Your task to perform on an android device: Is it going to rain this weekend? Image 0: 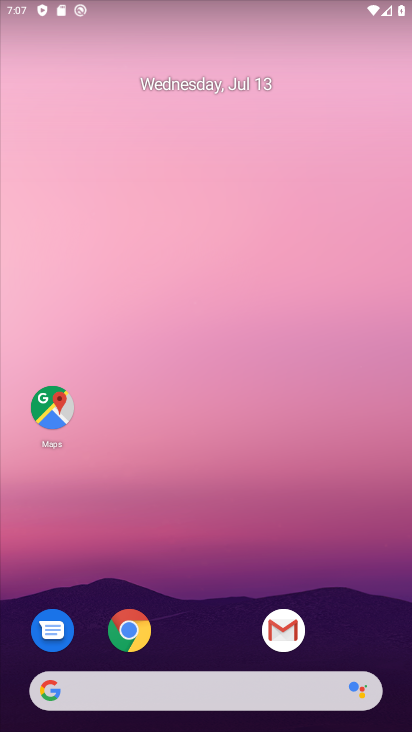
Step 0: drag from (191, 716) to (270, 255)
Your task to perform on an android device: Is it going to rain this weekend? Image 1: 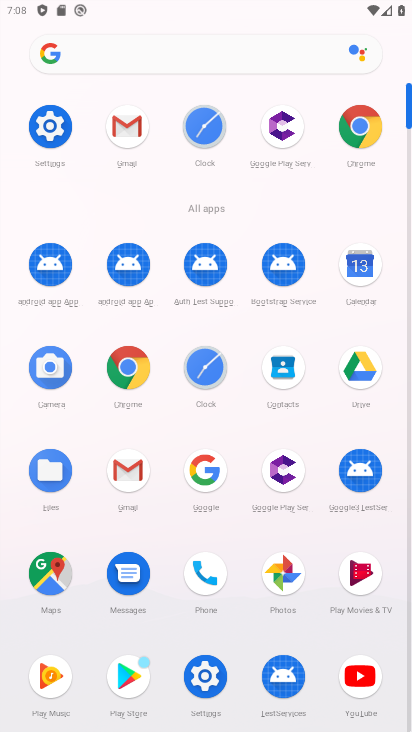
Step 1: click (171, 74)
Your task to perform on an android device: Is it going to rain this weekend? Image 2: 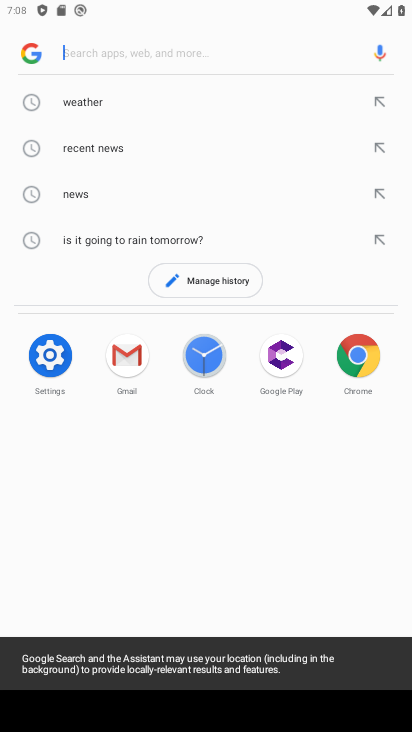
Step 2: click (135, 245)
Your task to perform on an android device: Is it going to rain this weekend? Image 3: 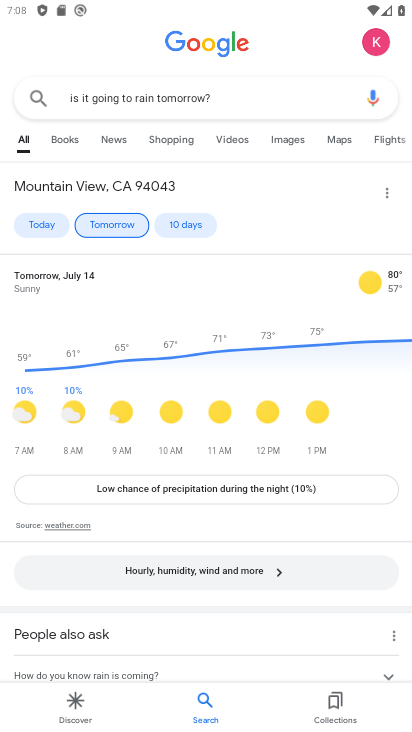
Step 3: click (184, 221)
Your task to perform on an android device: Is it going to rain this weekend? Image 4: 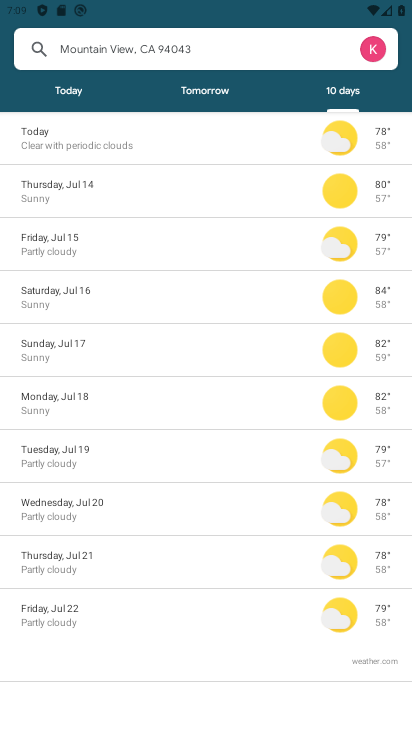
Step 4: task complete